Your task to perform on an android device: Do I have any events today? Image 0: 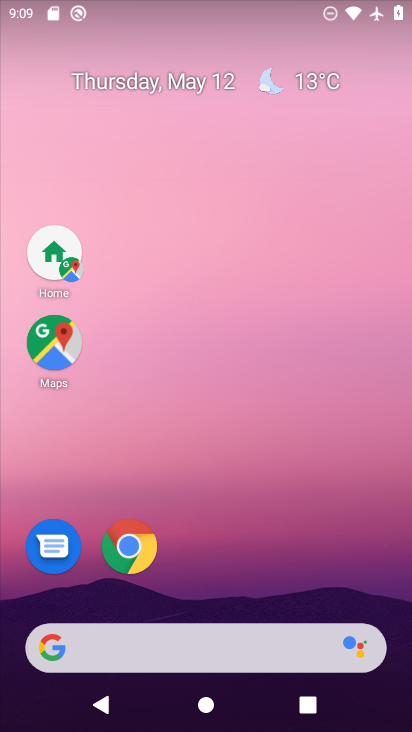
Step 0: drag from (187, 640) to (305, 135)
Your task to perform on an android device: Do I have any events today? Image 1: 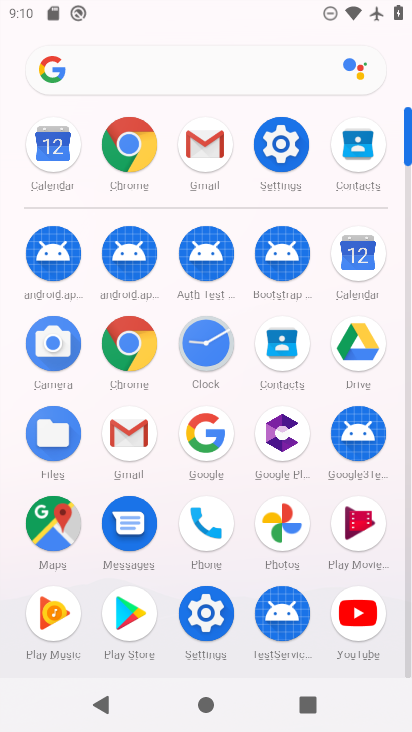
Step 1: click (360, 266)
Your task to perform on an android device: Do I have any events today? Image 2: 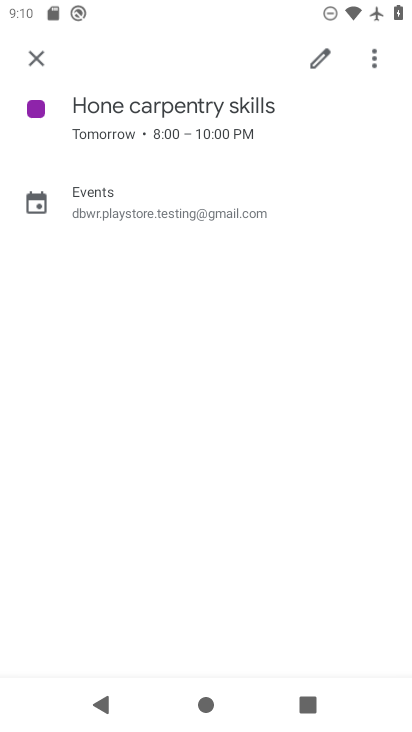
Step 2: click (33, 55)
Your task to perform on an android device: Do I have any events today? Image 3: 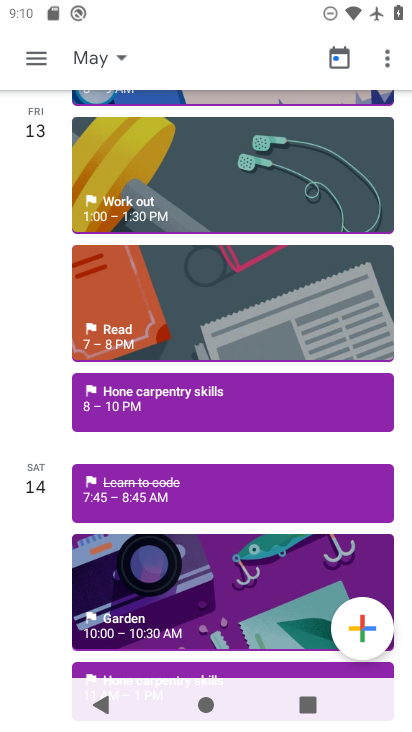
Step 3: click (92, 55)
Your task to perform on an android device: Do I have any events today? Image 4: 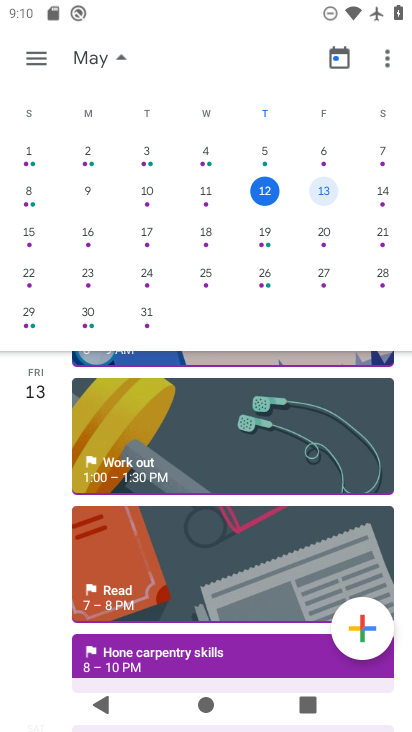
Step 4: click (258, 196)
Your task to perform on an android device: Do I have any events today? Image 5: 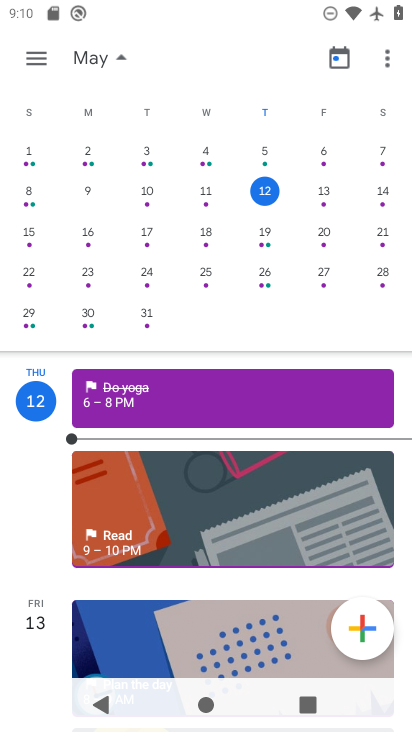
Step 5: click (30, 60)
Your task to perform on an android device: Do I have any events today? Image 6: 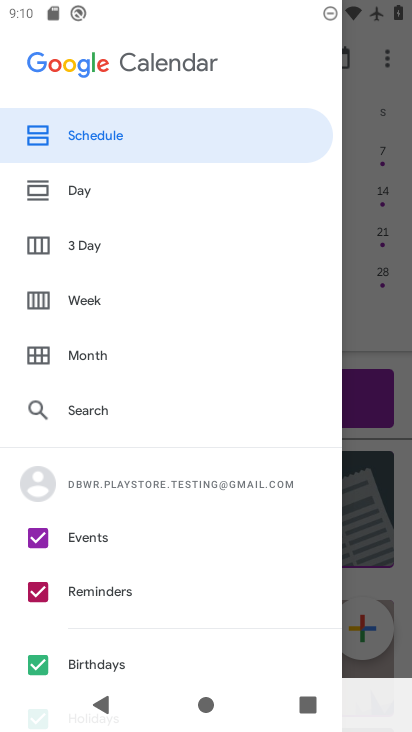
Step 6: click (106, 126)
Your task to perform on an android device: Do I have any events today? Image 7: 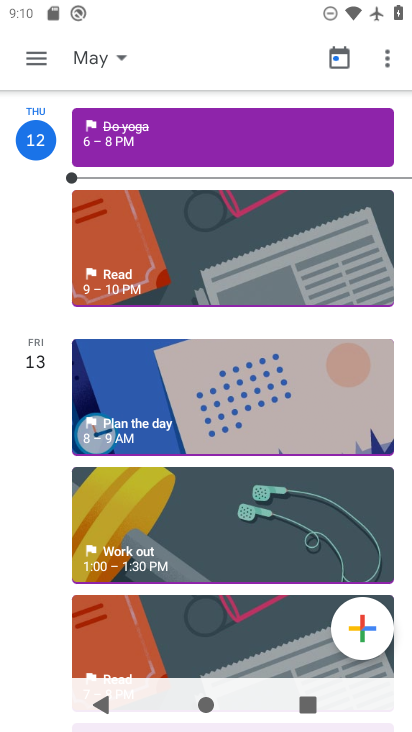
Step 7: task complete